Your task to perform on an android device: turn off notifications in google photos Image 0: 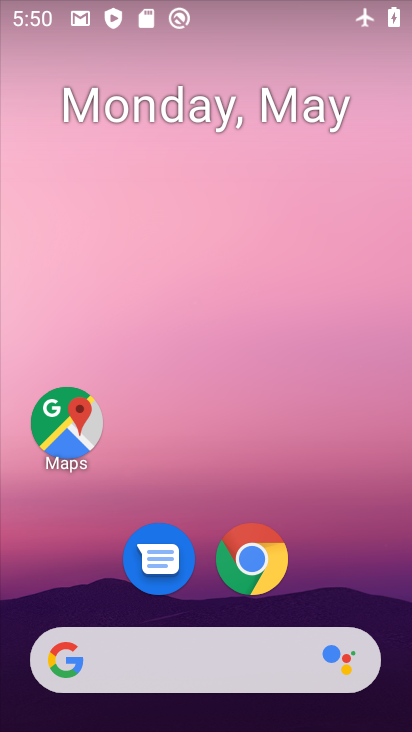
Step 0: click (258, 563)
Your task to perform on an android device: turn off notifications in google photos Image 1: 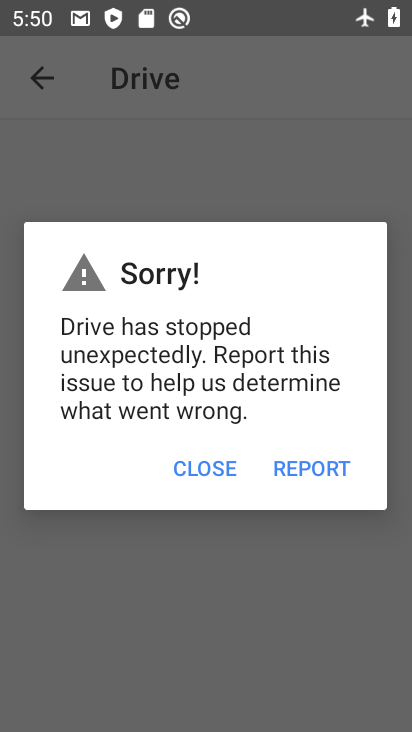
Step 1: press home button
Your task to perform on an android device: turn off notifications in google photos Image 2: 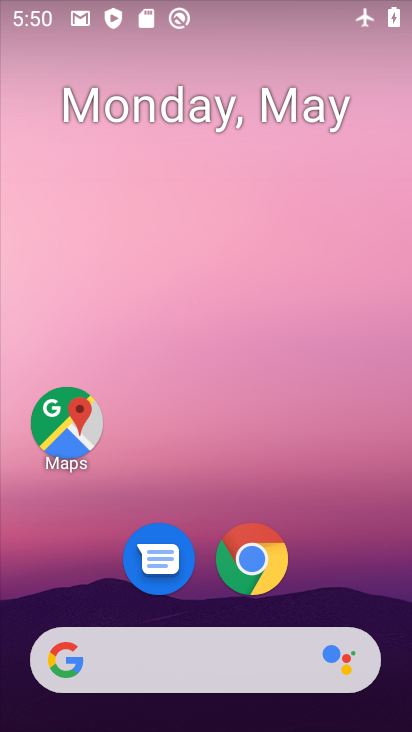
Step 2: drag from (328, 519) to (222, 156)
Your task to perform on an android device: turn off notifications in google photos Image 3: 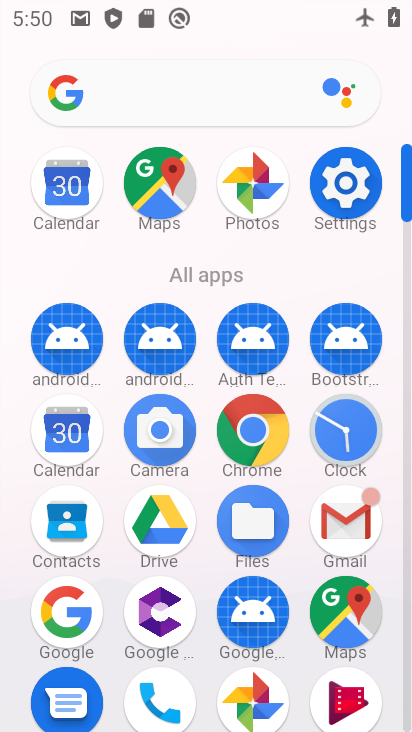
Step 3: click (237, 181)
Your task to perform on an android device: turn off notifications in google photos Image 4: 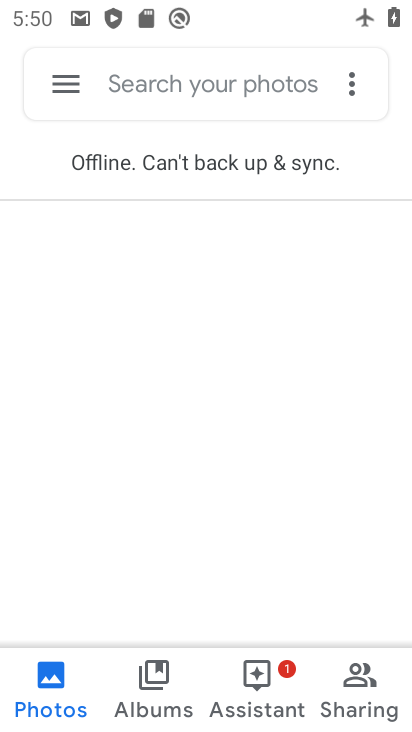
Step 4: click (75, 74)
Your task to perform on an android device: turn off notifications in google photos Image 5: 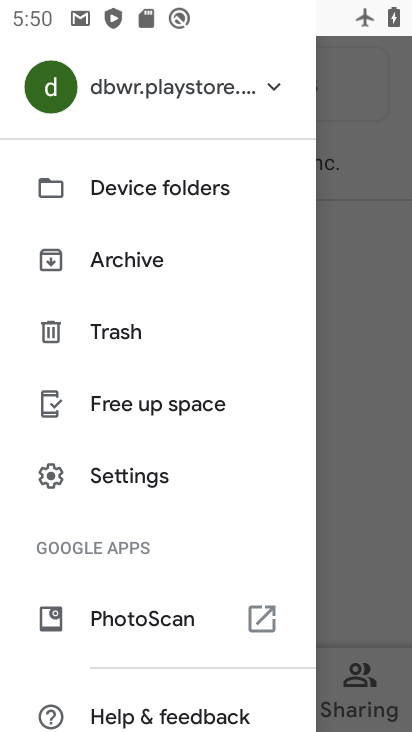
Step 5: click (132, 478)
Your task to perform on an android device: turn off notifications in google photos Image 6: 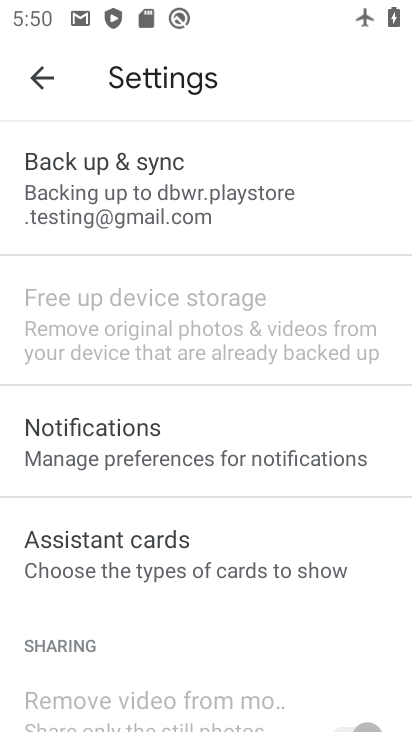
Step 6: click (117, 418)
Your task to perform on an android device: turn off notifications in google photos Image 7: 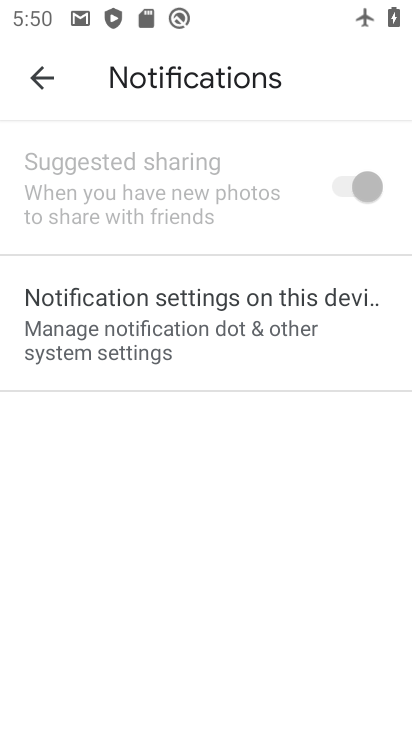
Step 7: click (210, 292)
Your task to perform on an android device: turn off notifications in google photos Image 8: 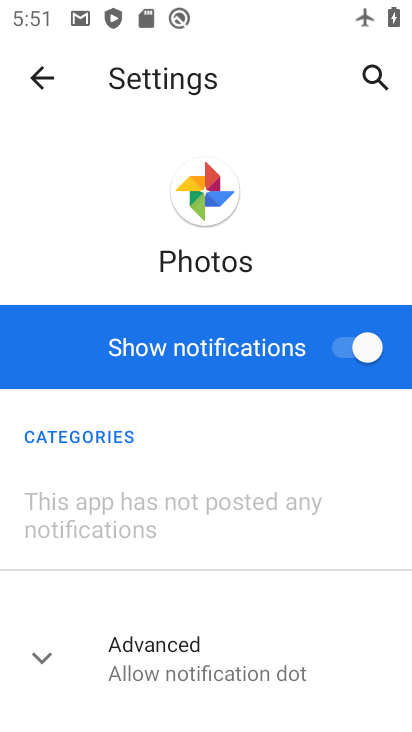
Step 8: click (363, 346)
Your task to perform on an android device: turn off notifications in google photos Image 9: 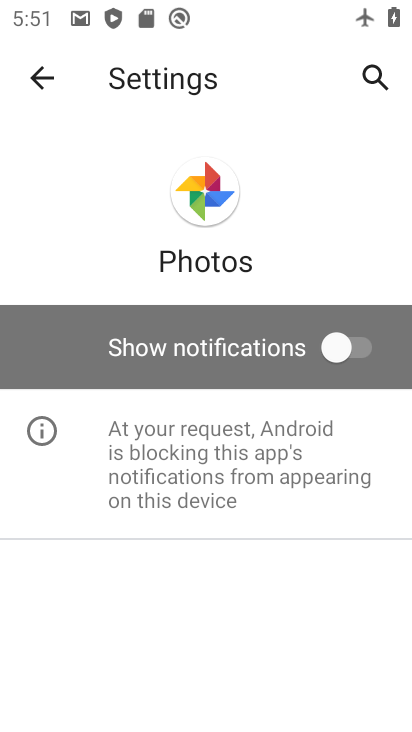
Step 9: task complete